Your task to perform on an android device: toggle pop-ups in chrome Image 0: 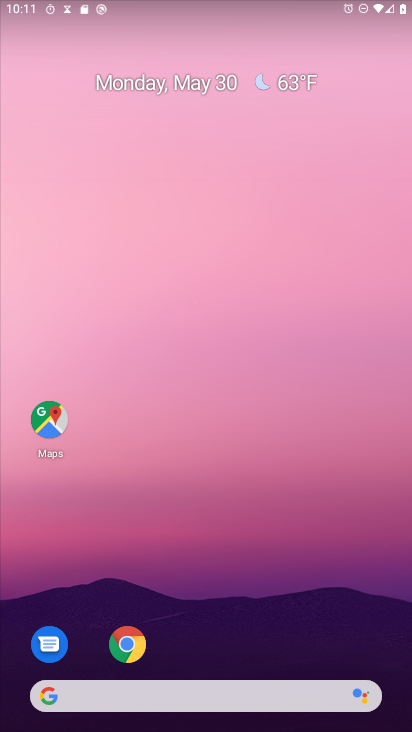
Step 0: click (125, 645)
Your task to perform on an android device: toggle pop-ups in chrome Image 1: 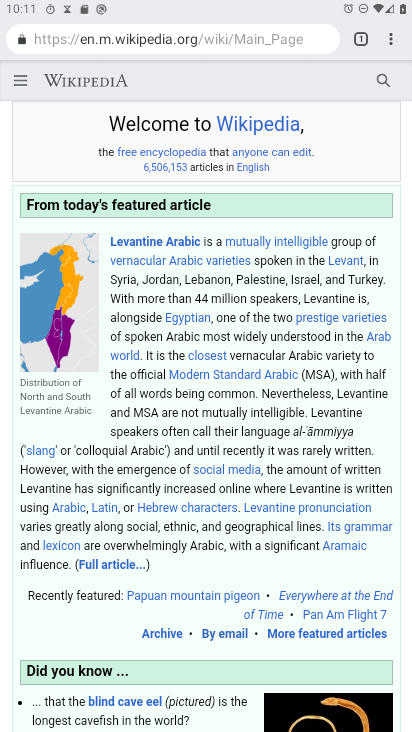
Step 1: click (384, 37)
Your task to perform on an android device: toggle pop-ups in chrome Image 2: 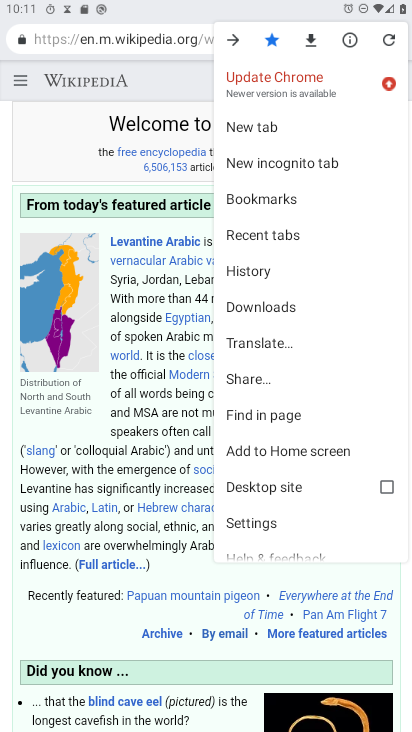
Step 2: click (244, 529)
Your task to perform on an android device: toggle pop-ups in chrome Image 3: 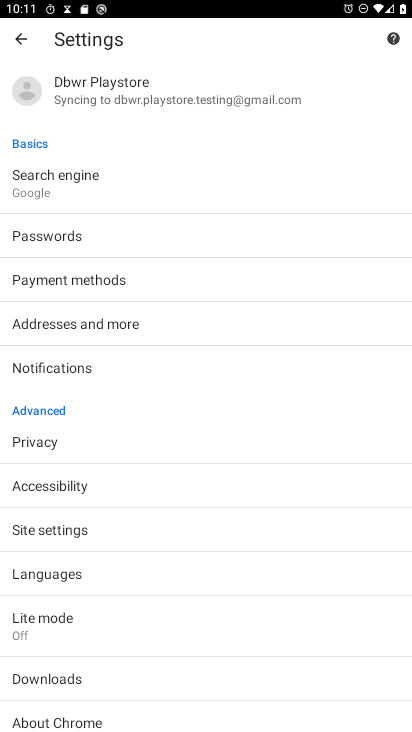
Step 3: click (65, 533)
Your task to perform on an android device: toggle pop-ups in chrome Image 4: 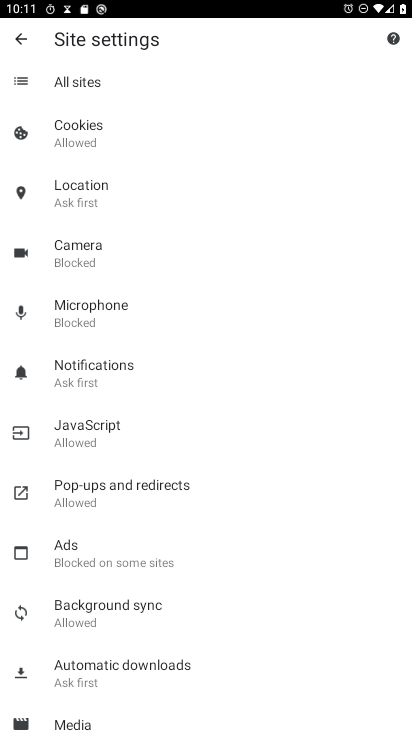
Step 4: click (108, 496)
Your task to perform on an android device: toggle pop-ups in chrome Image 5: 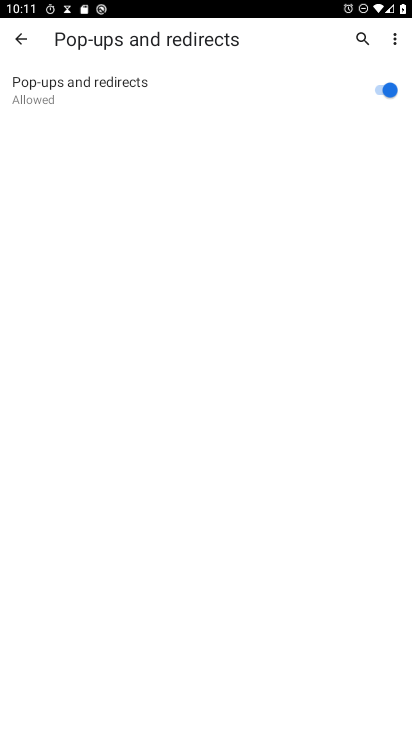
Step 5: click (384, 93)
Your task to perform on an android device: toggle pop-ups in chrome Image 6: 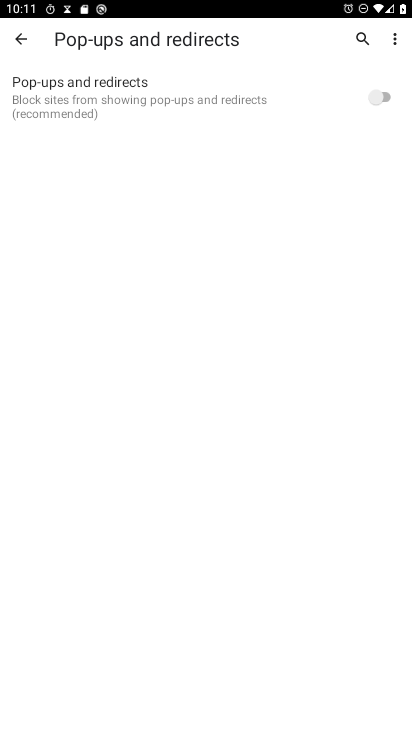
Step 6: task complete